Your task to perform on an android device: read, delete, or share a saved page in the chrome app Image 0: 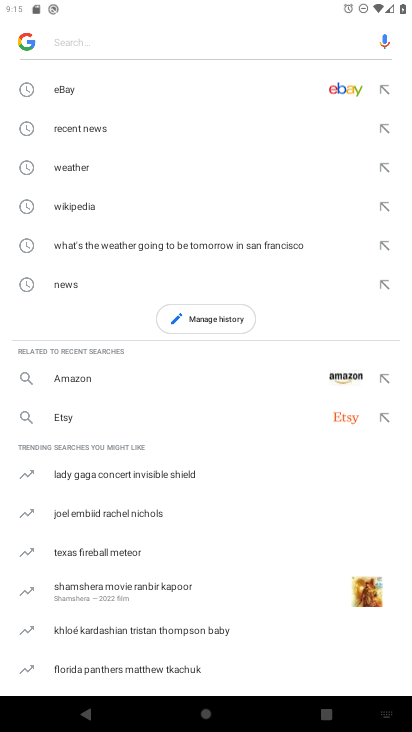
Step 0: press home button
Your task to perform on an android device: read, delete, or share a saved page in the chrome app Image 1: 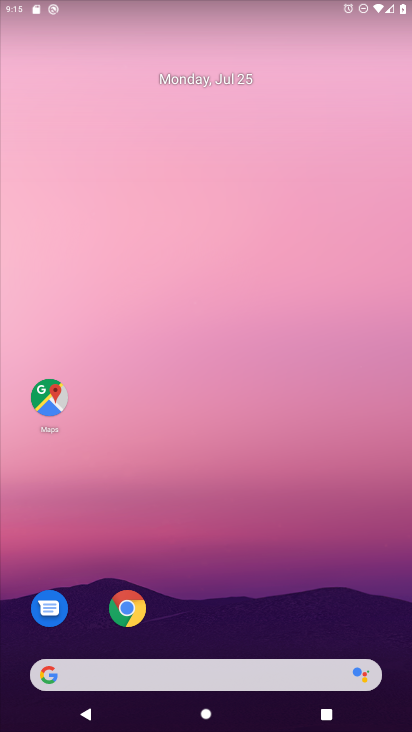
Step 1: click (124, 600)
Your task to perform on an android device: read, delete, or share a saved page in the chrome app Image 2: 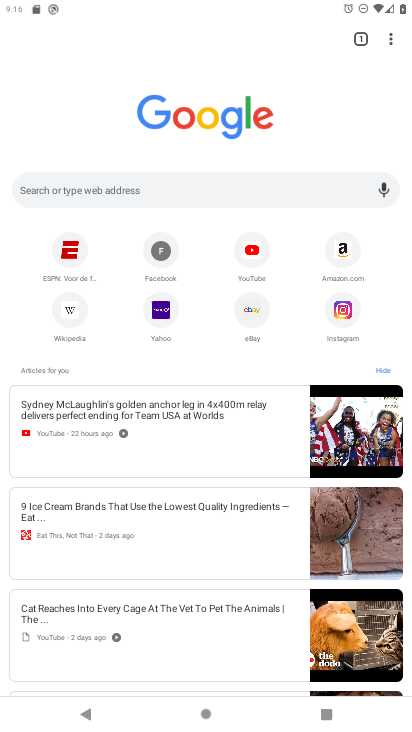
Step 2: click (393, 34)
Your task to perform on an android device: read, delete, or share a saved page in the chrome app Image 3: 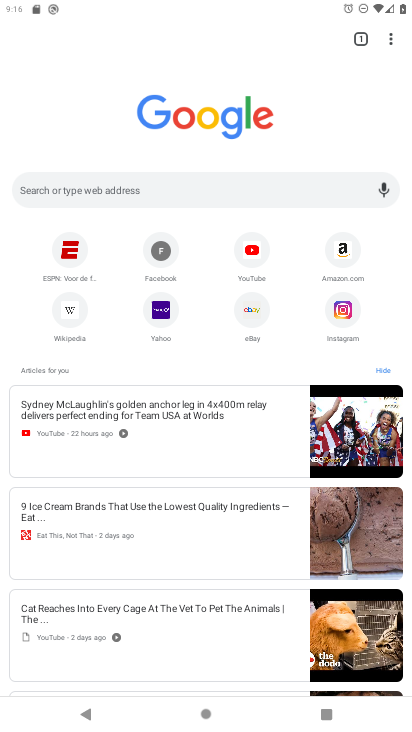
Step 3: click (393, 34)
Your task to perform on an android device: read, delete, or share a saved page in the chrome app Image 4: 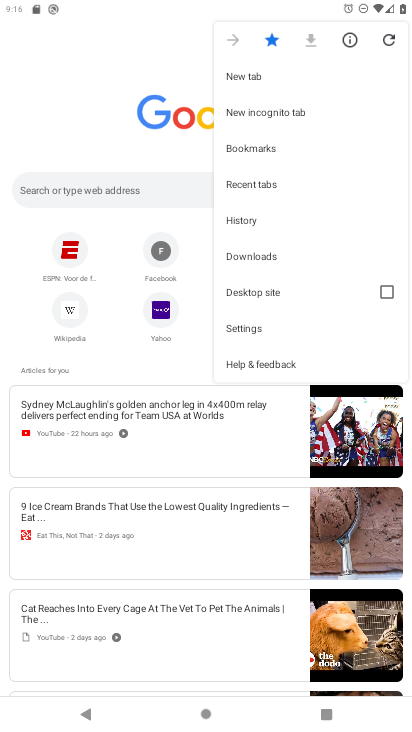
Step 4: click (258, 325)
Your task to perform on an android device: read, delete, or share a saved page in the chrome app Image 5: 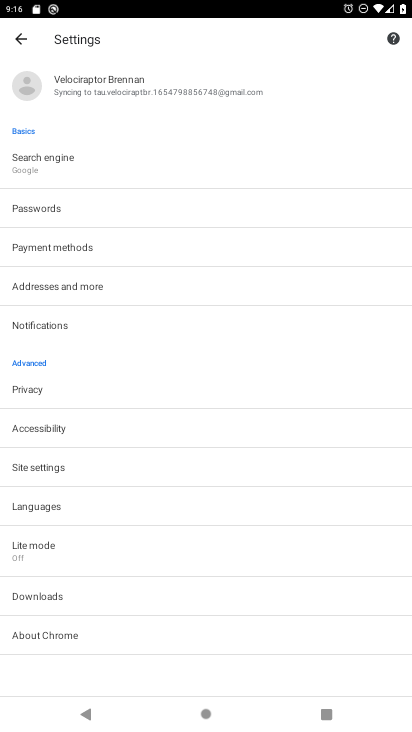
Step 5: click (72, 597)
Your task to perform on an android device: read, delete, or share a saved page in the chrome app Image 6: 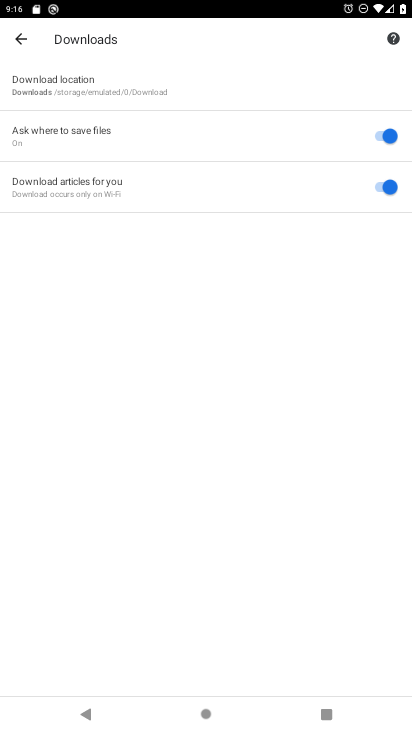
Step 6: task complete